Your task to perform on an android device: Open Google Maps Image 0: 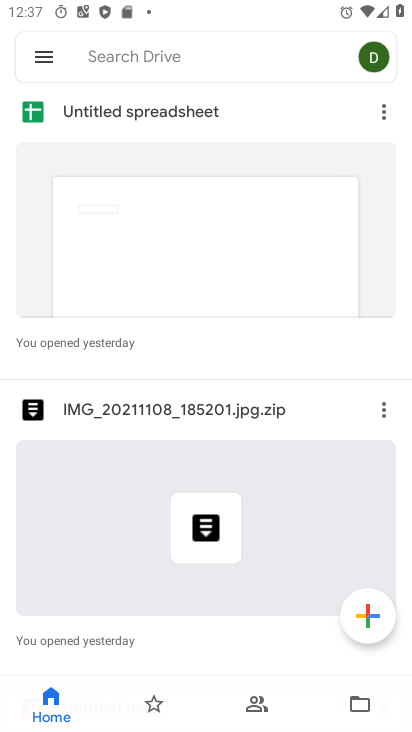
Step 0: press home button
Your task to perform on an android device: Open Google Maps Image 1: 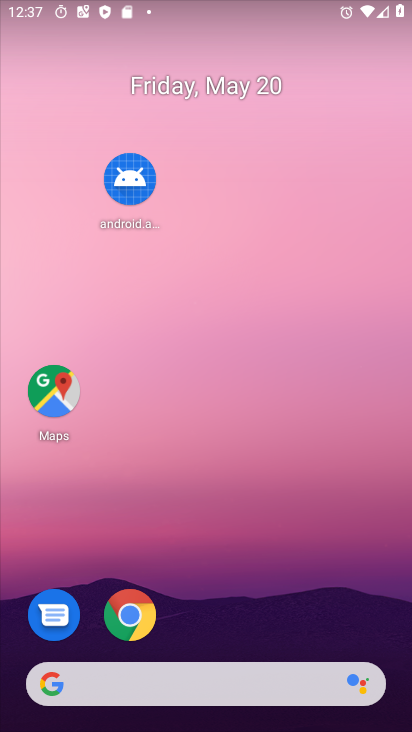
Step 1: click (40, 395)
Your task to perform on an android device: Open Google Maps Image 2: 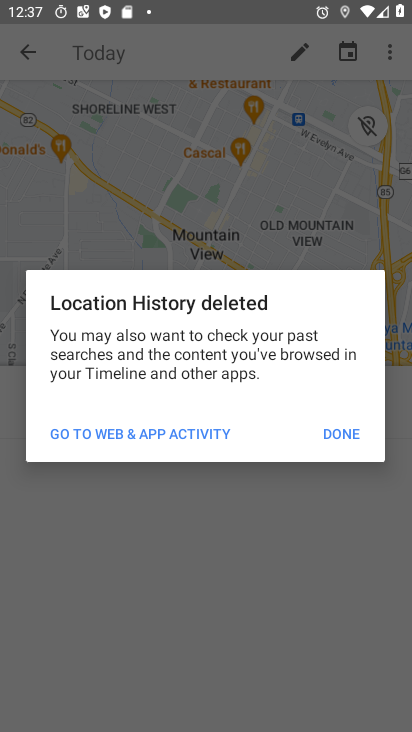
Step 2: click (343, 440)
Your task to perform on an android device: Open Google Maps Image 3: 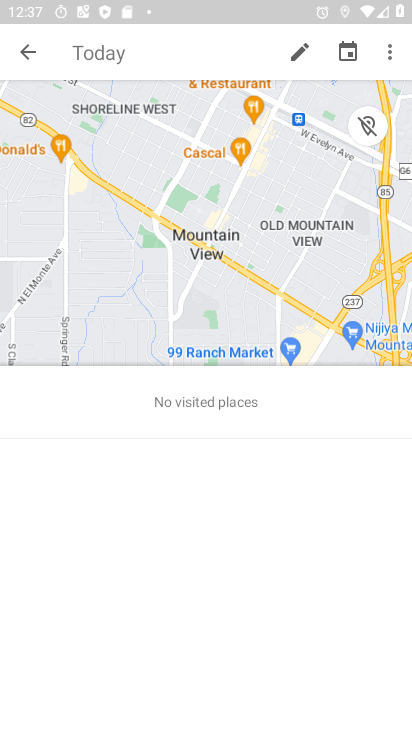
Step 3: click (23, 46)
Your task to perform on an android device: Open Google Maps Image 4: 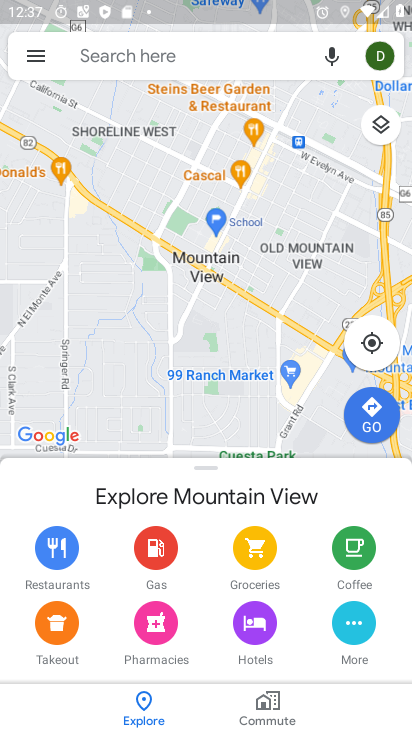
Step 4: task complete